Your task to perform on an android device: turn off data saver in the chrome app Image 0: 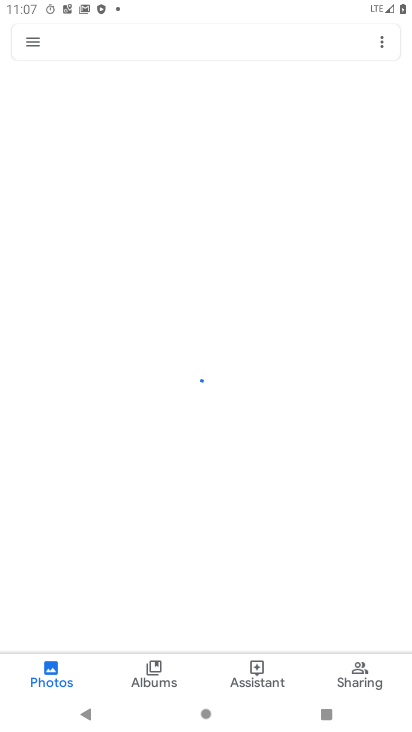
Step 0: press home button
Your task to perform on an android device: turn off data saver in the chrome app Image 1: 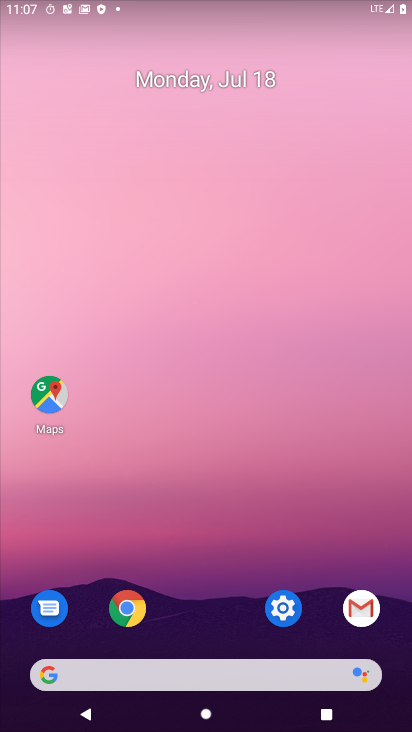
Step 1: click (128, 614)
Your task to perform on an android device: turn off data saver in the chrome app Image 2: 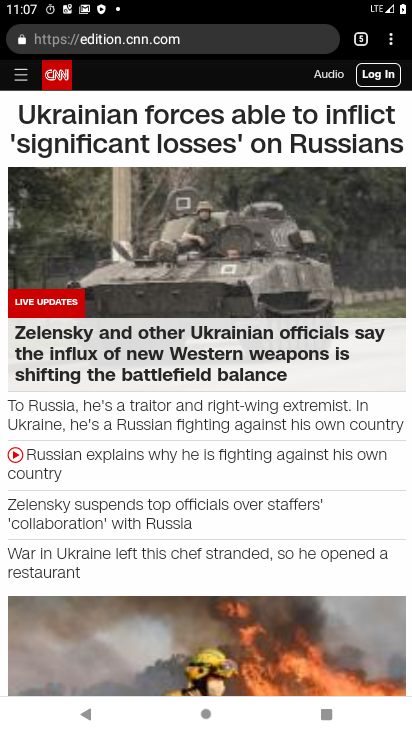
Step 2: click (390, 45)
Your task to perform on an android device: turn off data saver in the chrome app Image 3: 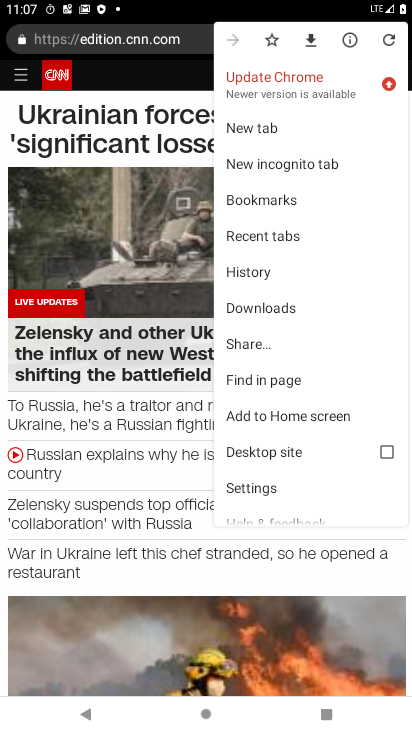
Step 3: click (252, 490)
Your task to perform on an android device: turn off data saver in the chrome app Image 4: 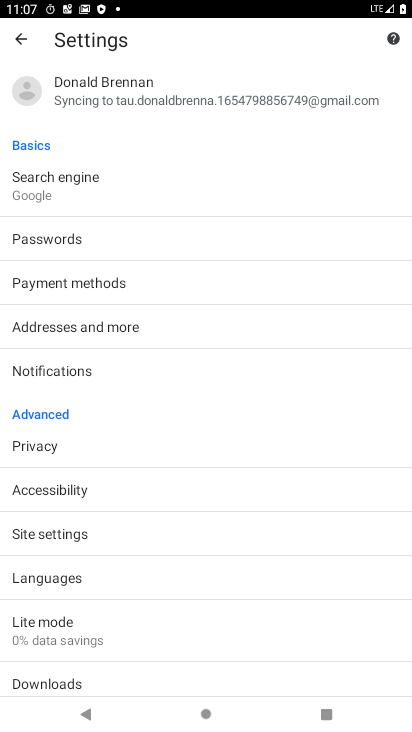
Step 4: click (99, 625)
Your task to perform on an android device: turn off data saver in the chrome app Image 5: 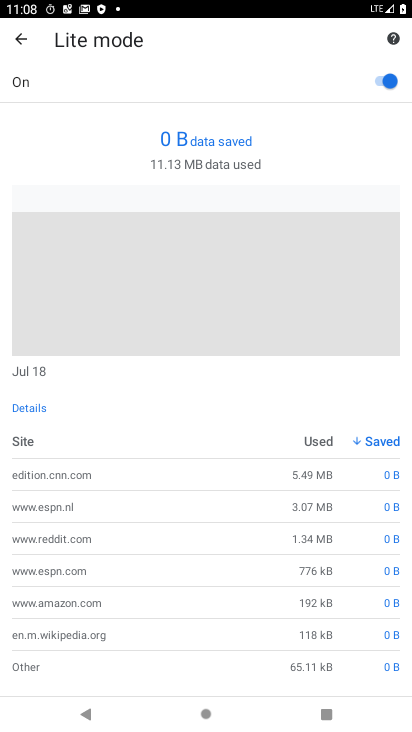
Step 5: click (381, 73)
Your task to perform on an android device: turn off data saver in the chrome app Image 6: 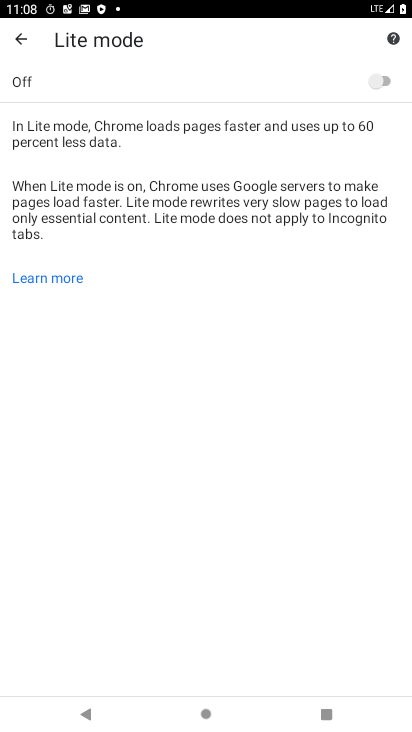
Step 6: task complete